Your task to perform on an android device: Open Google Maps Image 0: 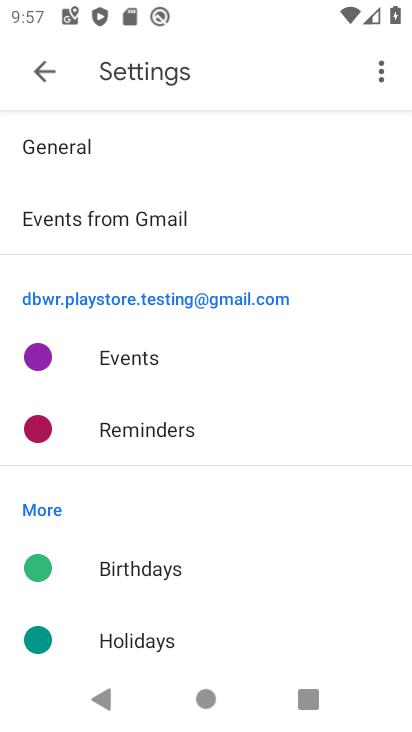
Step 0: press home button
Your task to perform on an android device: Open Google Maps Image 1: 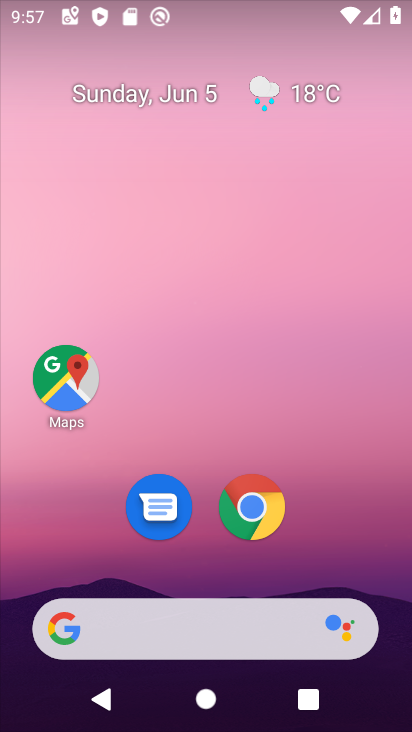
Step 1: click (82, 368)
Your task to perform on an android device: Open Google Maps Image 2: 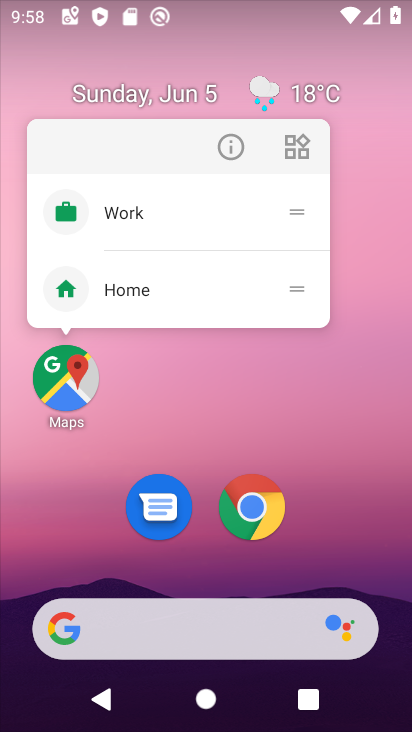
Step 2: click (81, 368)
Your task to perform on an android device: Open Google Maps Image 3: 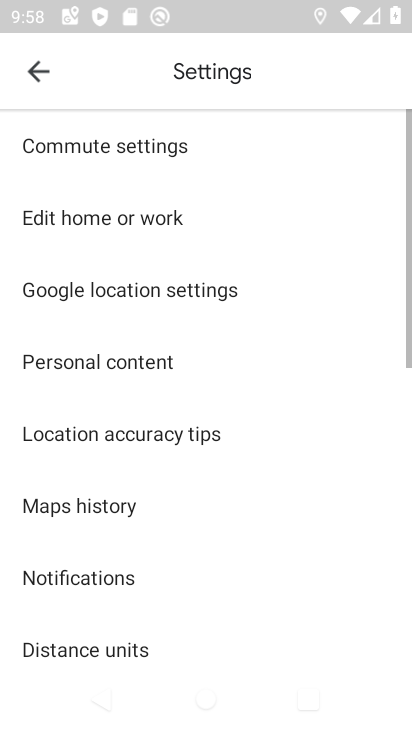
Step 3: click (35, 65)
Your task to perform on an android device: Open Google Maps Image 4: 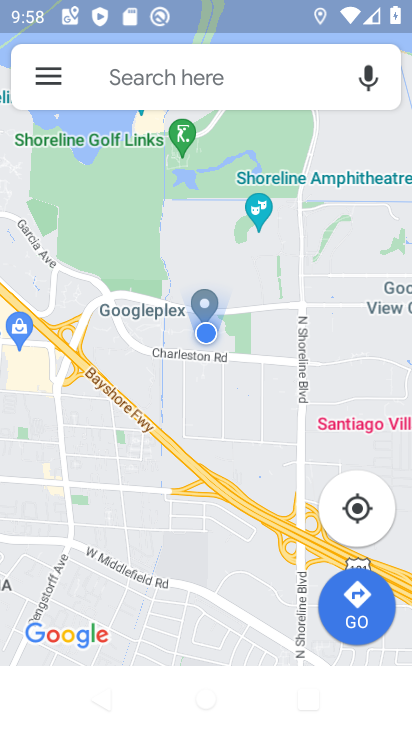
Step 4: task complete